Your task to perform on an android device: turn off sleep mode Image 0: 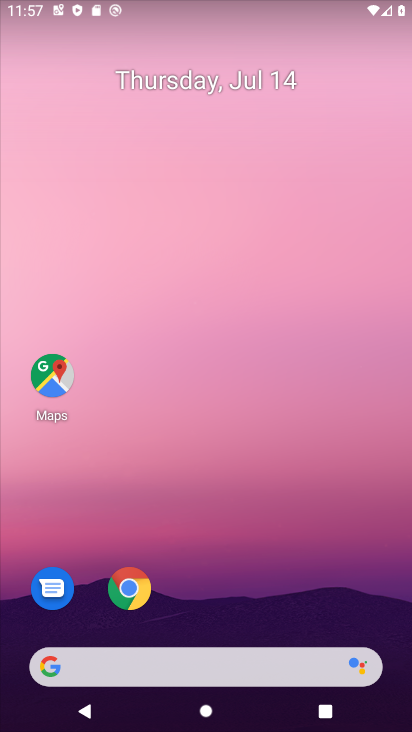
Step 0: drag from (245, 703) to (182, 69)
Your task to perform on an android device: turn off sleep mode Image 1: 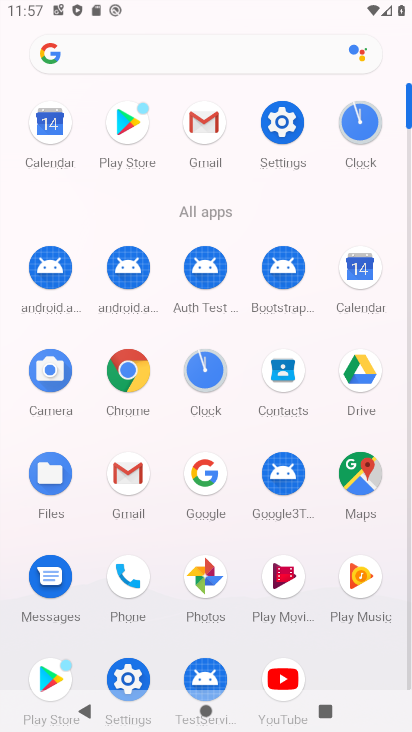
Step 1: click (279, 139)
Your task to perform on an android device: turn off sleep mode Image 2: 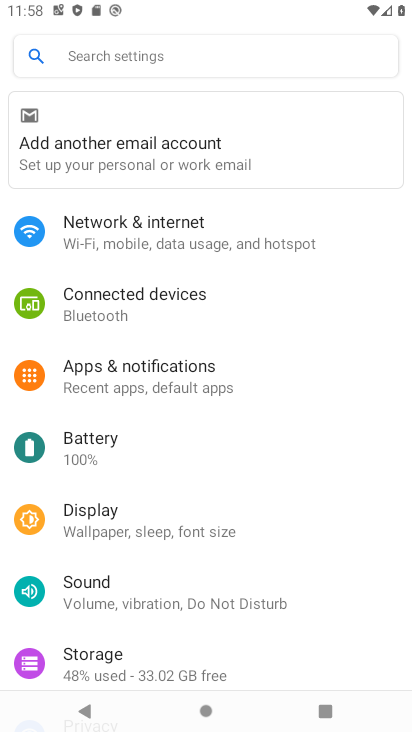
Step 2: click (218, 525)
Your task to perform on an android device: turn off sleep mode Image 3: 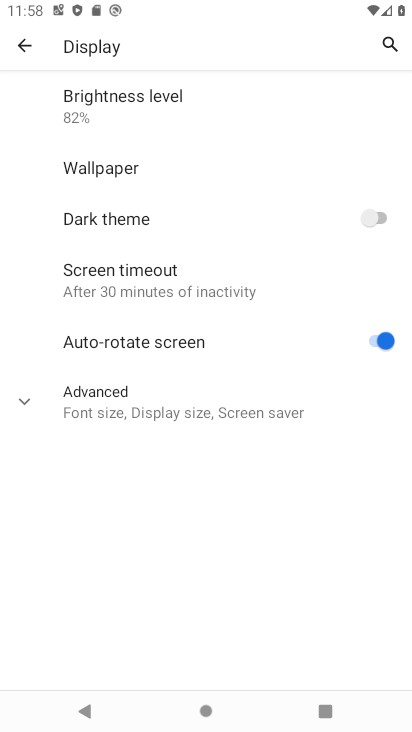
Step 3: task complete